Your task to perform on an android device: Search for Italian restaurants on Maps Image 0: 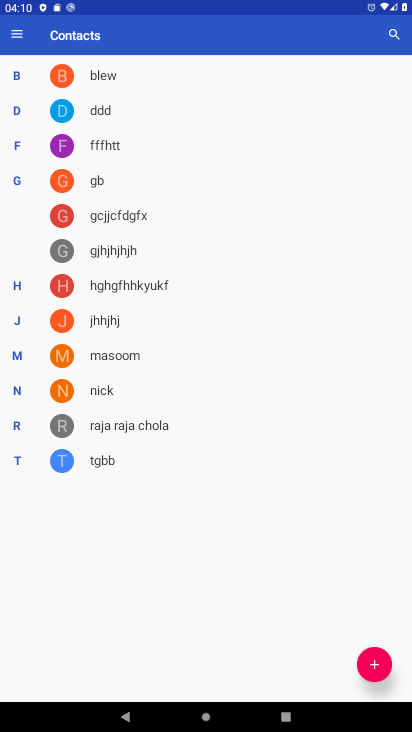
Step 0: press home button
Your task to perform on an android device: Search for Italian restaurants on Maps Image 1: 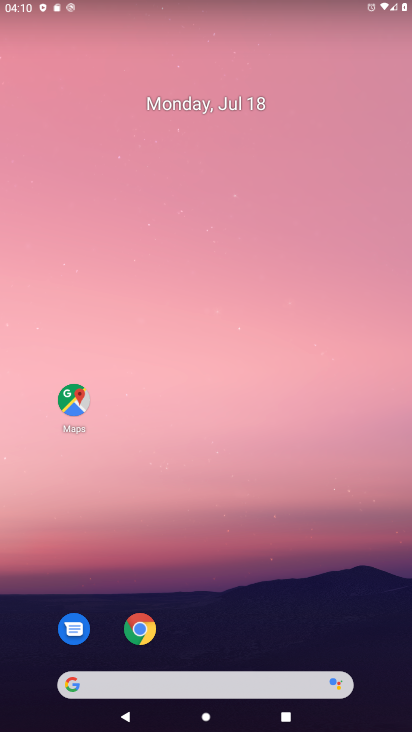
Step 1: click (68, 409)
Your task to perform on an android device: Search for Italian restaurants on Maps Image 2: 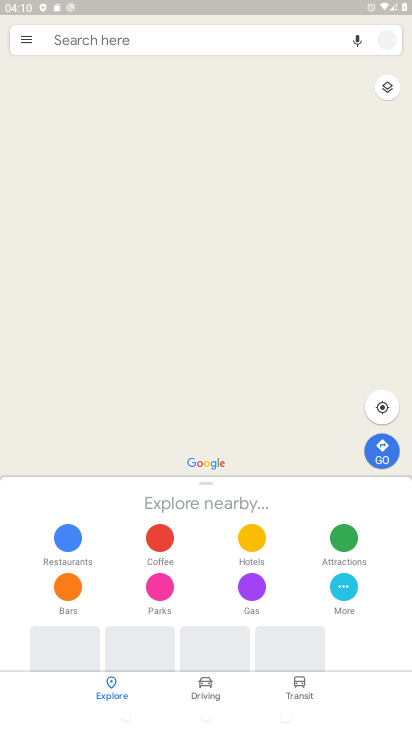
Step 2: click (171, 41)
Your task to perform on an android device: Search for Italian restaurants on Maps Image 3: 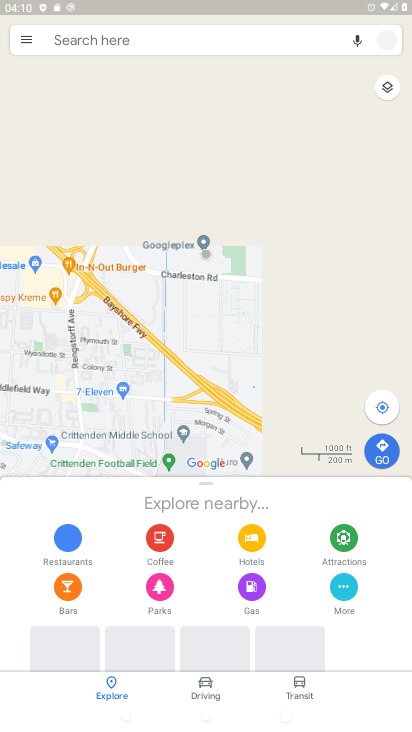
Step 3: click (92, 45)
Your task to perform on an android device: Search for Italian restaurants on Maps Image 4: 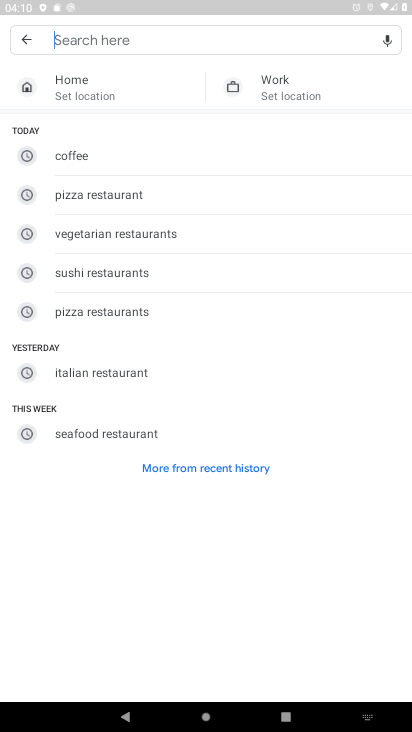
Step 4: type "Italian restaurants"
Your task to perform on an android device: Search for Italian restaurants on Maps Image 5: 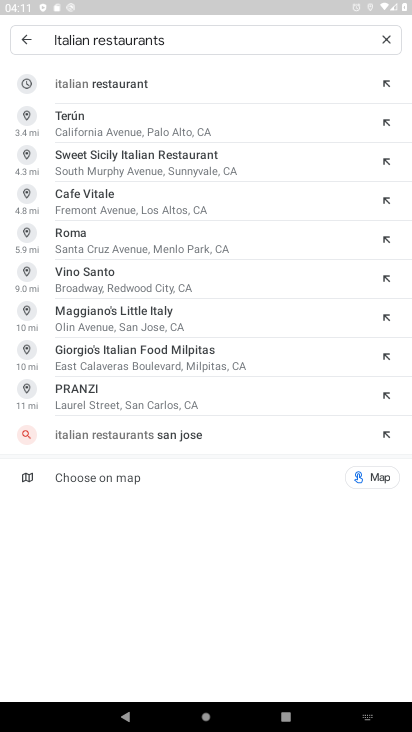
Step 5: click (121, 87)
Your task to perform on an android device: Search for Italian restaurants on Maps Image 6: 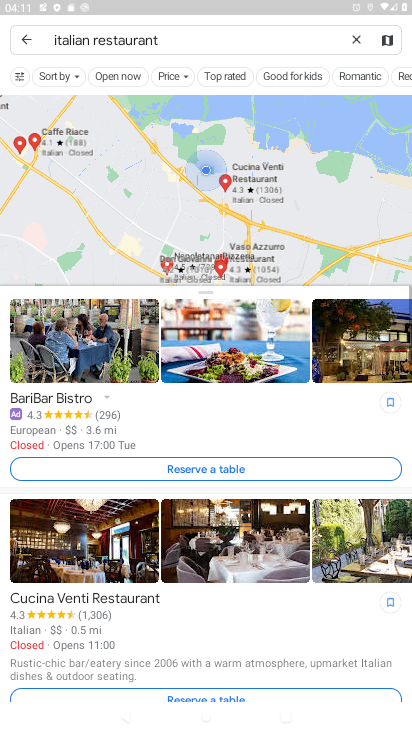
Step 6: task complete